Your task to perform on an android device: Go to Google Image 0: 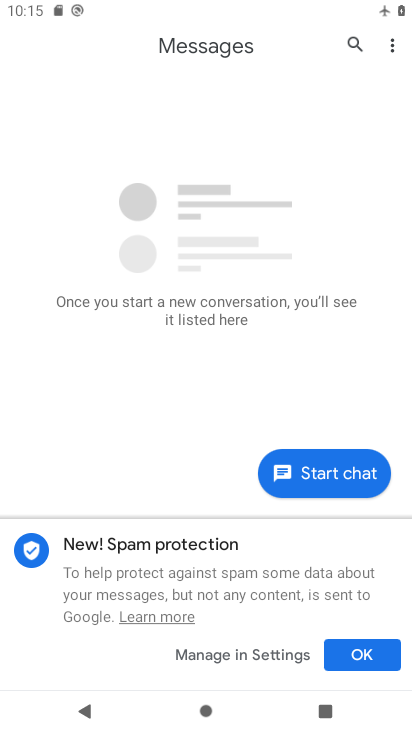
Step 0: drag from (175, 603) to (282, 545)
Your task to perform on an android device: Go to Google Image 1: 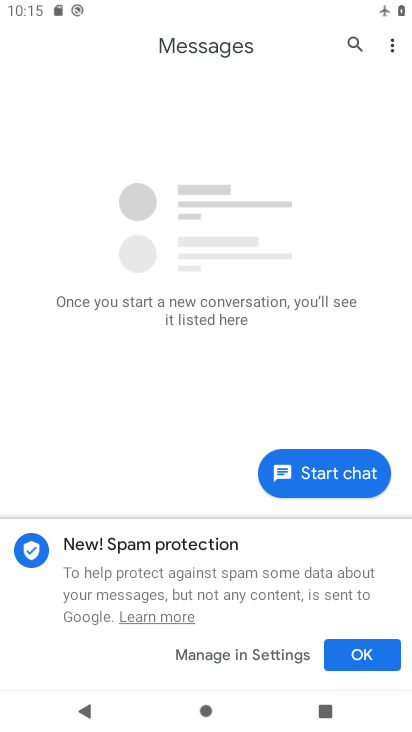
Step 1: press home button
Your task to perform on an android device: Go to Google Image 2: 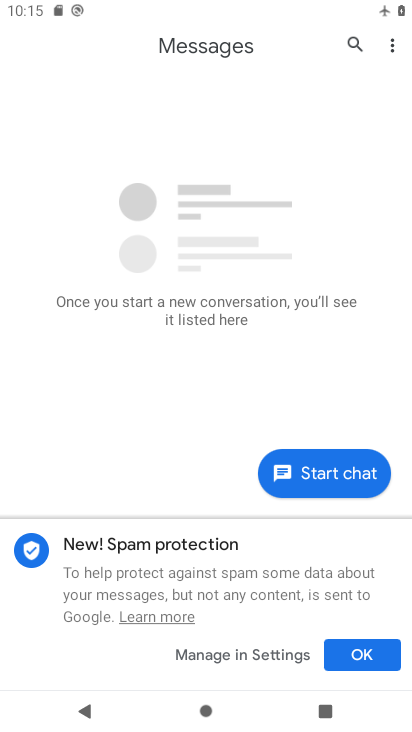
Step 2: drag from (282, 545) to (409, 560)
Your task to perform on an android device: Go to Google Image 3: 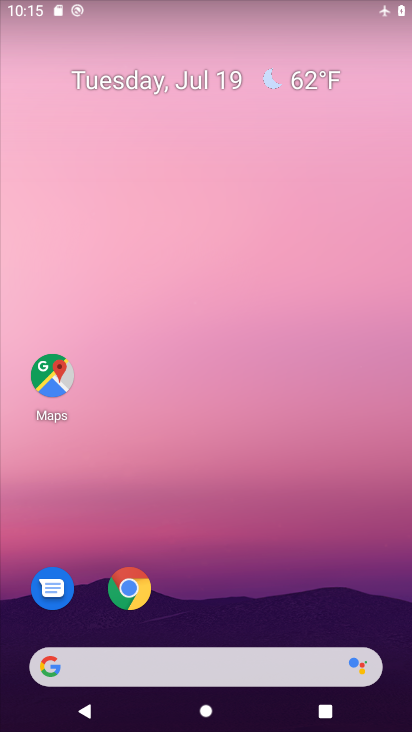
Step 3: click (179, 682)
Your task to perform on an android device: Go to Google Image 4: 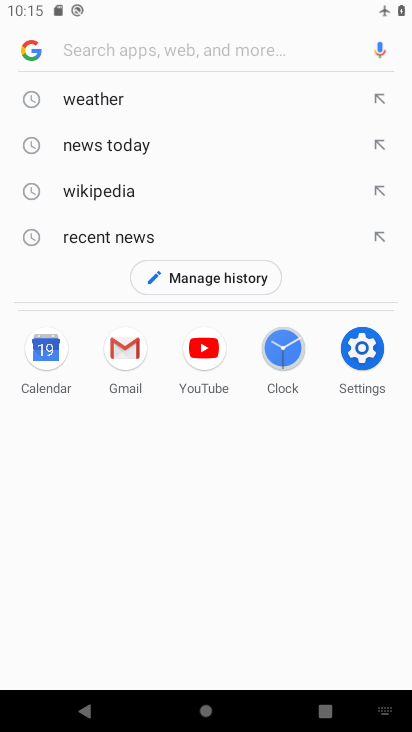
Step 4: task complete